Your task to perform on an android device: View the shopping cart on amazon. Search for "logitech g pro" on amazon, select the first entry, add it to the cart, then select checkout. Image 0: 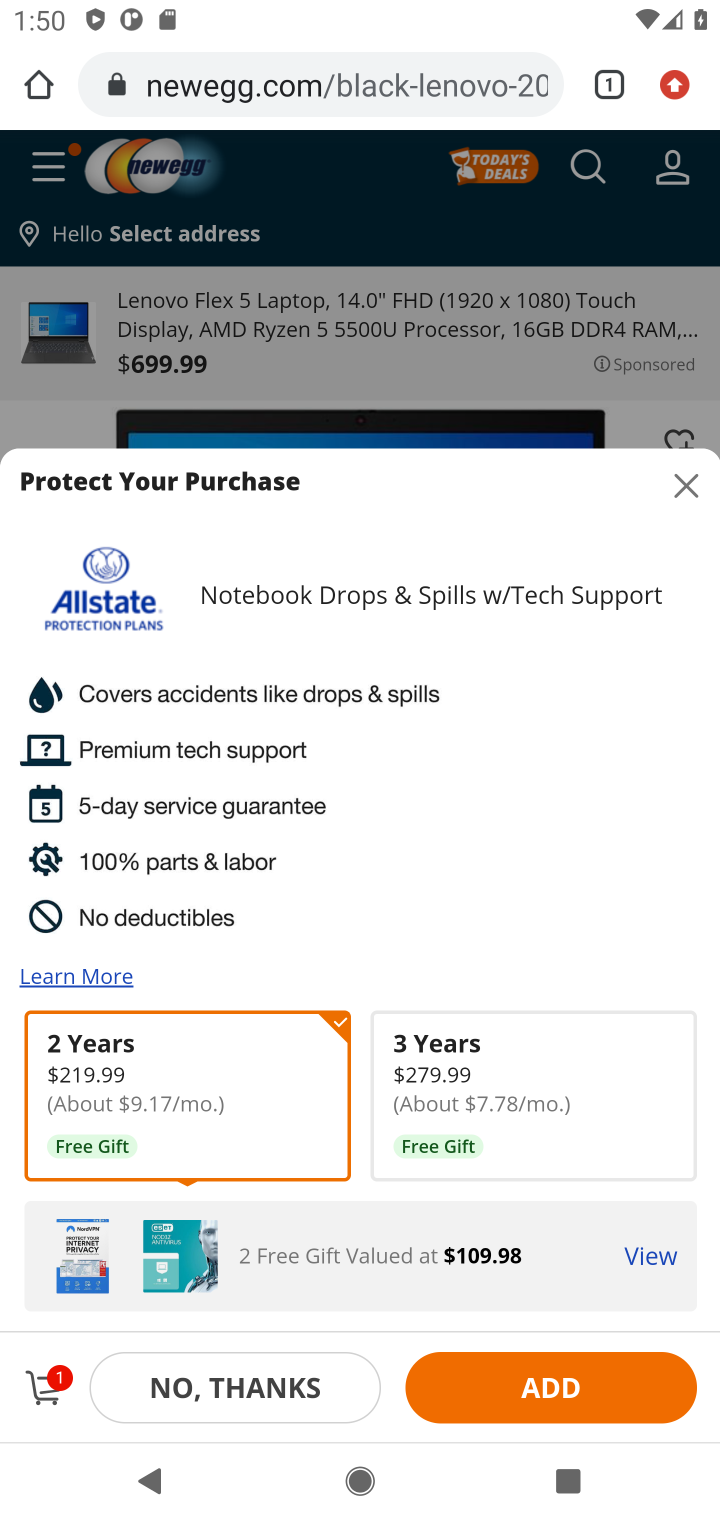
Step 0: press home button
Your task to perform on an android device: View the shopping cart on amazon. Search for "logitech g pro" on amazon, select the first entry, add it to the cart, then select checkout. Image 1: 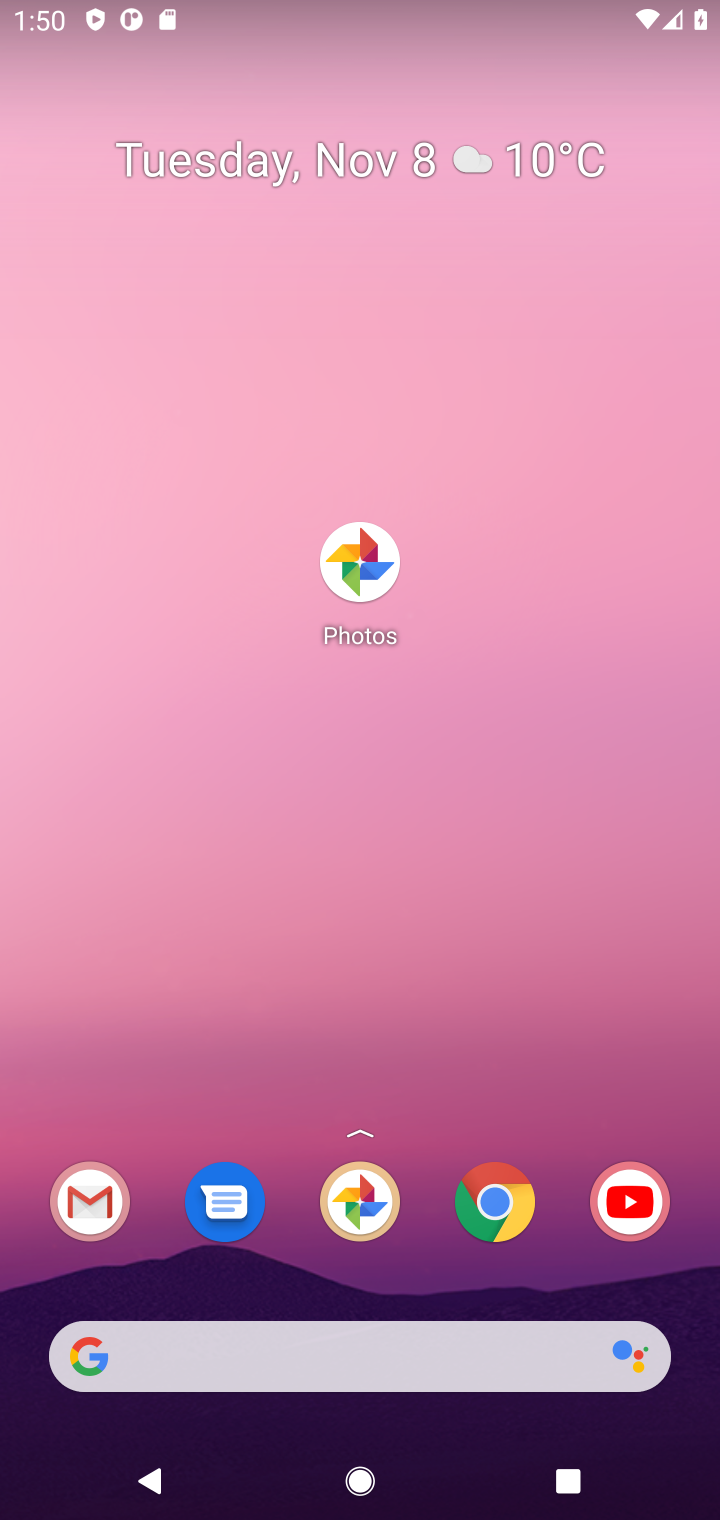
Step 1: drag from (329, 1317) to (306, 686)
Your task to perform on an android device: View the shopping cart on amazon. Search for "logitech g pro" on amazon, select the first entry, add it to the cart, then select checkout. Image 2: 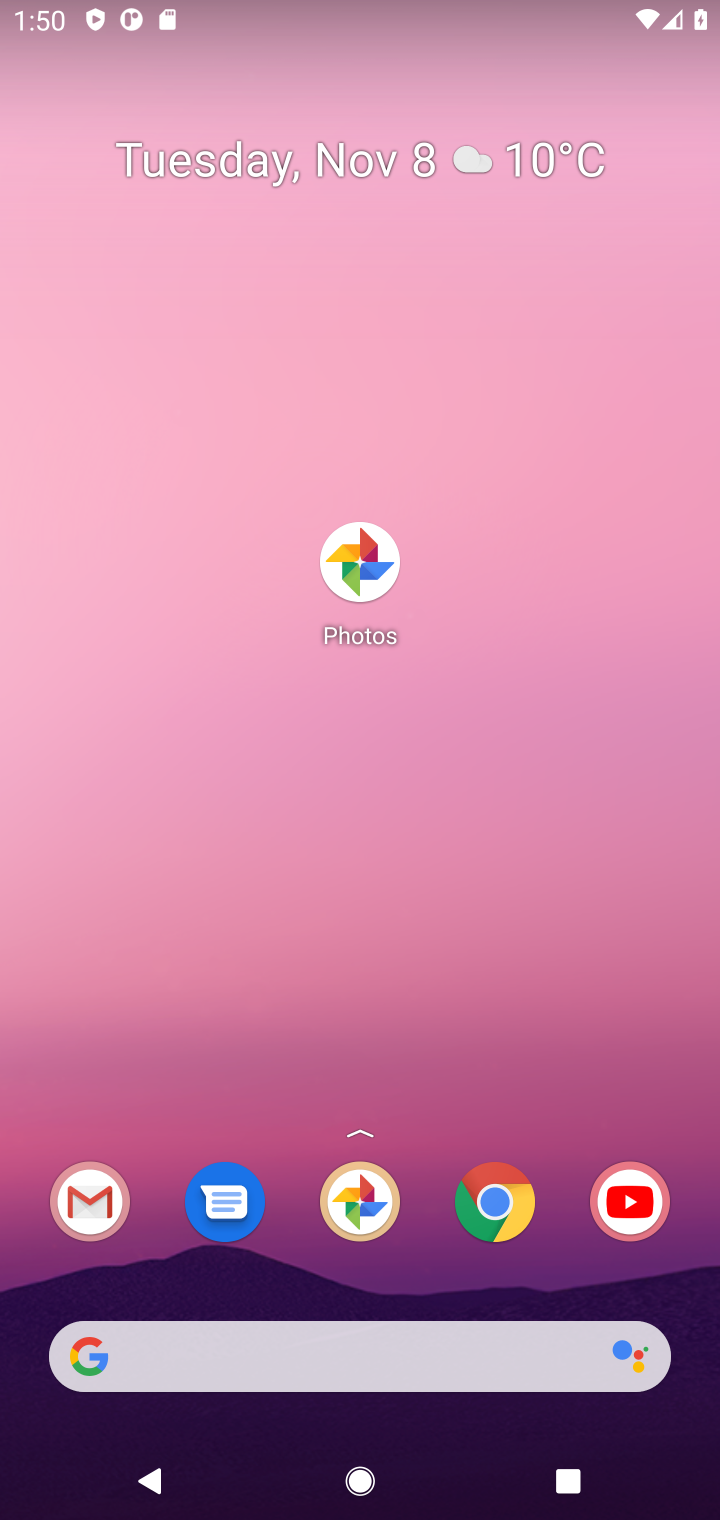
Step 2: click (438, 377)
Your task to perform on an android device: View the shopping cart on amazon. Search for "logitech g pro" on amazon, select the first entry, add it to the cart, then select checkout. Image 3: 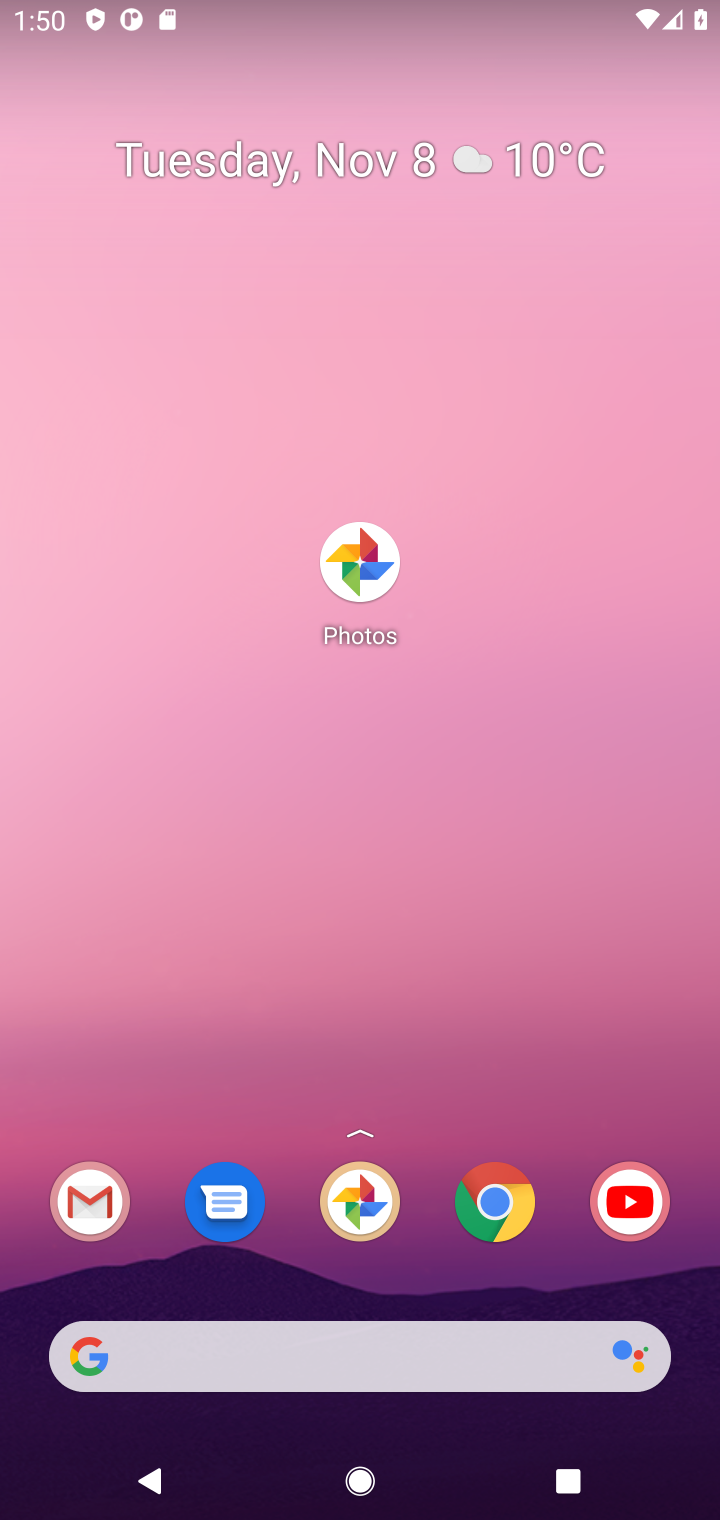
Step 3: drag from (435, 1272) to (511, 187)
Your task to perform on an android device: View the shopping cart on amazon. Search for "logitech g pro" on amazon, select the first entry, add it to the cart, then select checkout. Image 4: 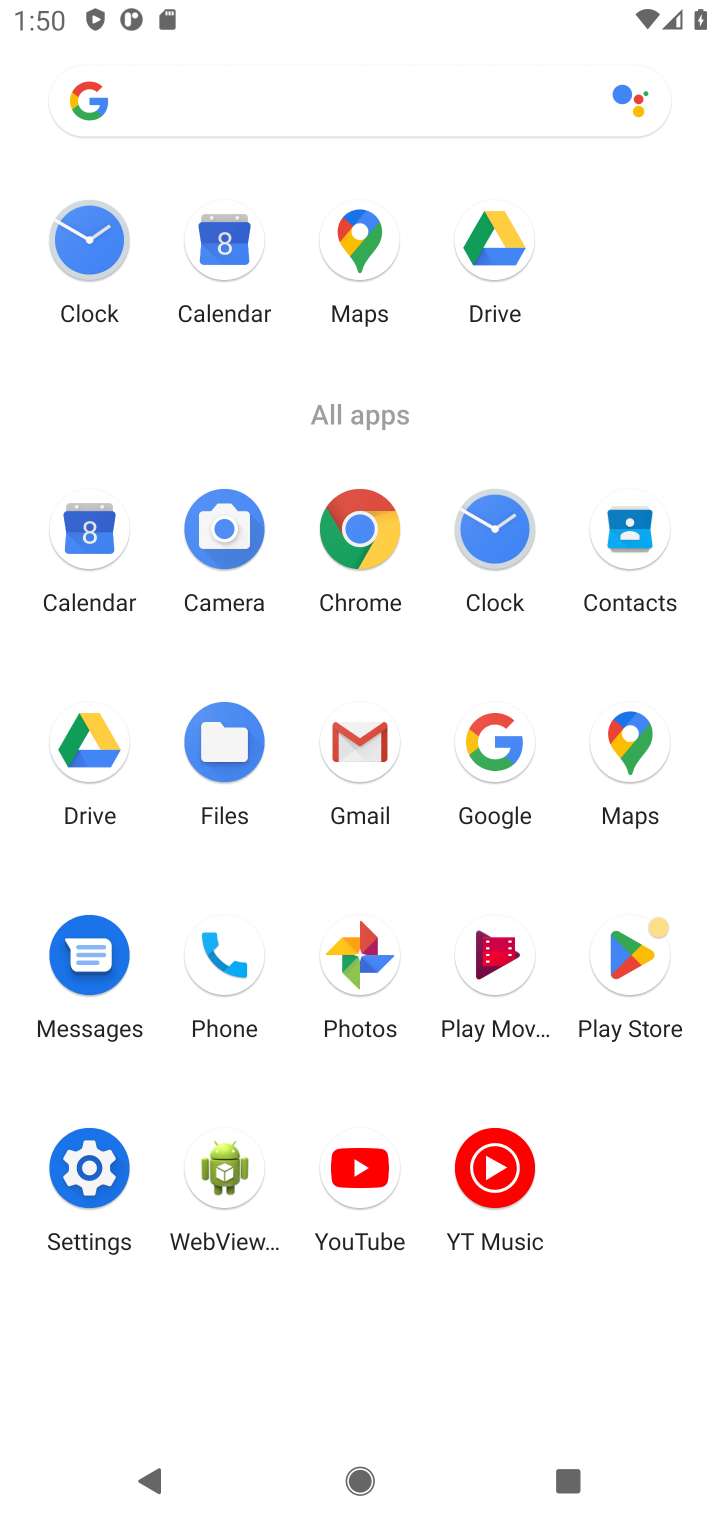
Step 4: click (493, 772)
Your task to perform on an android device: View the shopping cart on amazon. Search for "logitech g pro" on amazon, select the first entry, add it to the cart, then select checkout. Image 5: 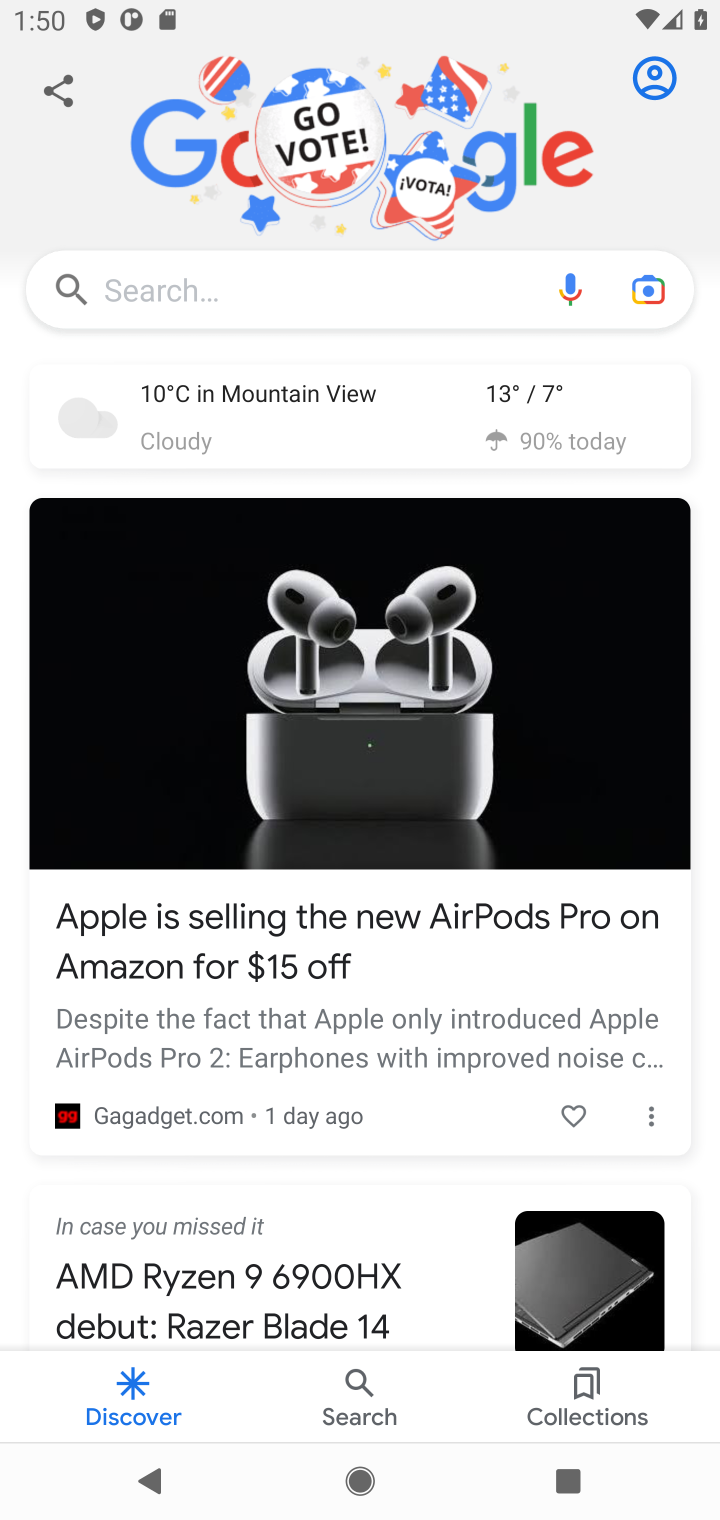
Step 5: click (336, 298)
Your task to perform on an android device: View the shopping cart on amazon. Search for "logitech g pro" on amazon, select the first entry, add it to the cart, then select checkout. Image 6: 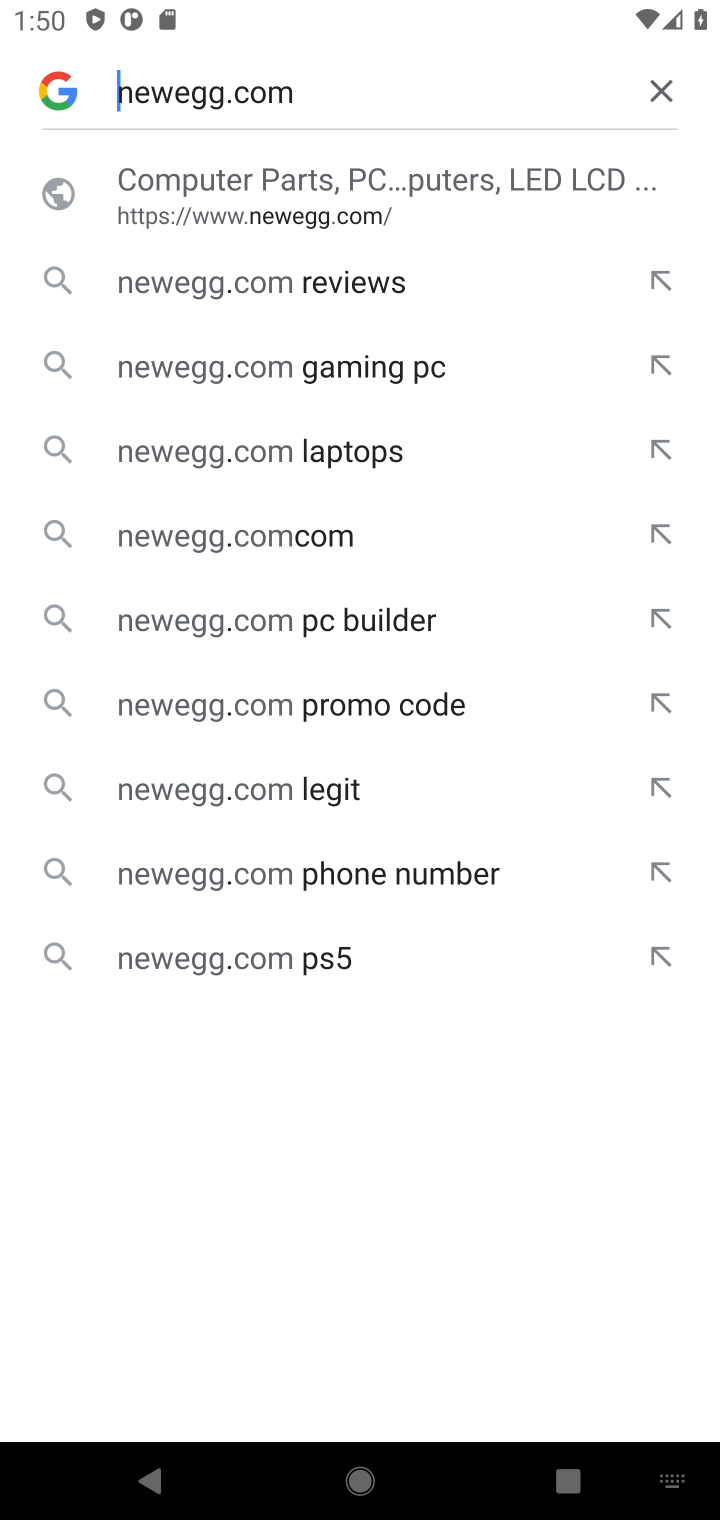
Step 6: click (645, 89)
Your task to perform on an android device: View the shopping cart on amazon. Search for "logitech g pro" on amazon, select the first entry, add it to the cart, then select checkout. Image 7: 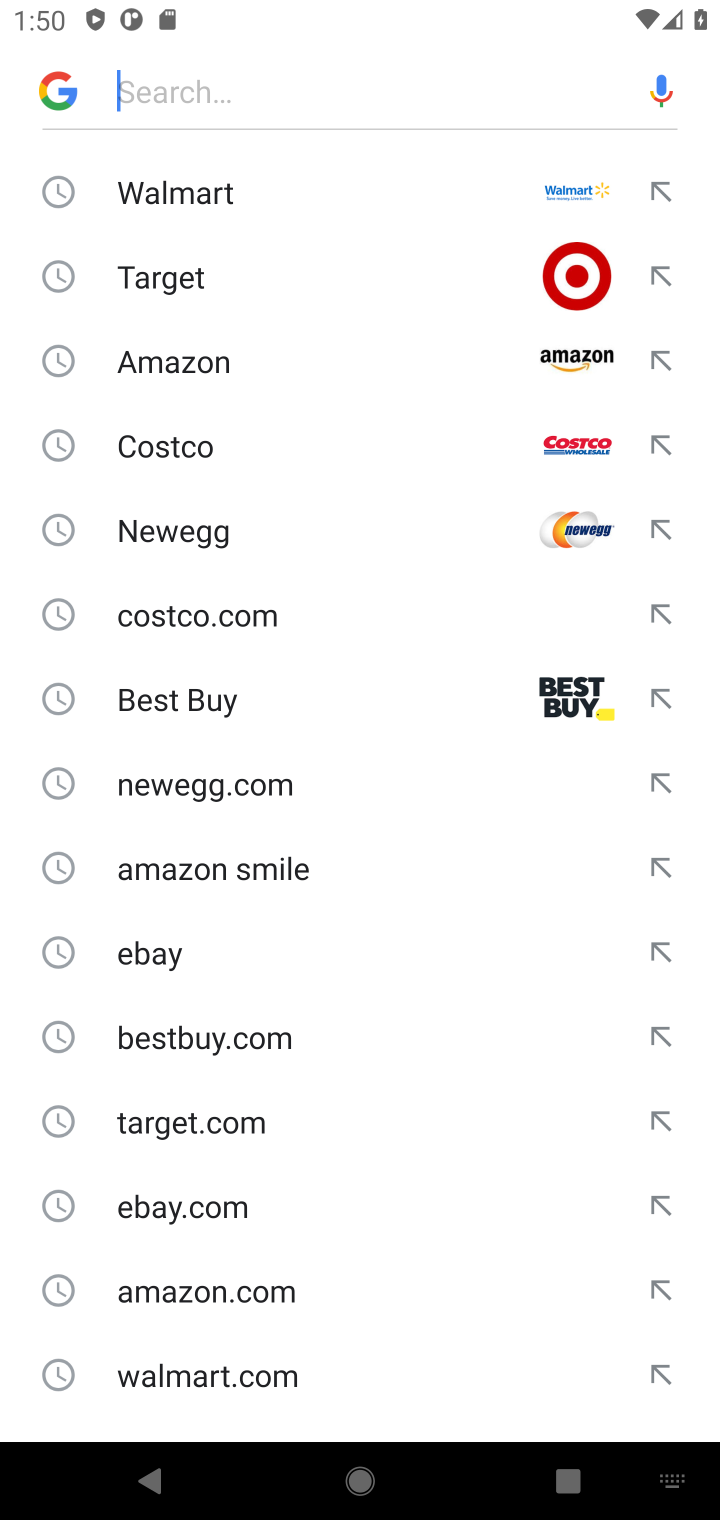
Step 7: type "amazon"
Your task to perform on an android device: View the shopping cart on amazon. Search for "logitech g pro" on amazon, select the first entry, add it to the cart, then select checkout. Image 8: 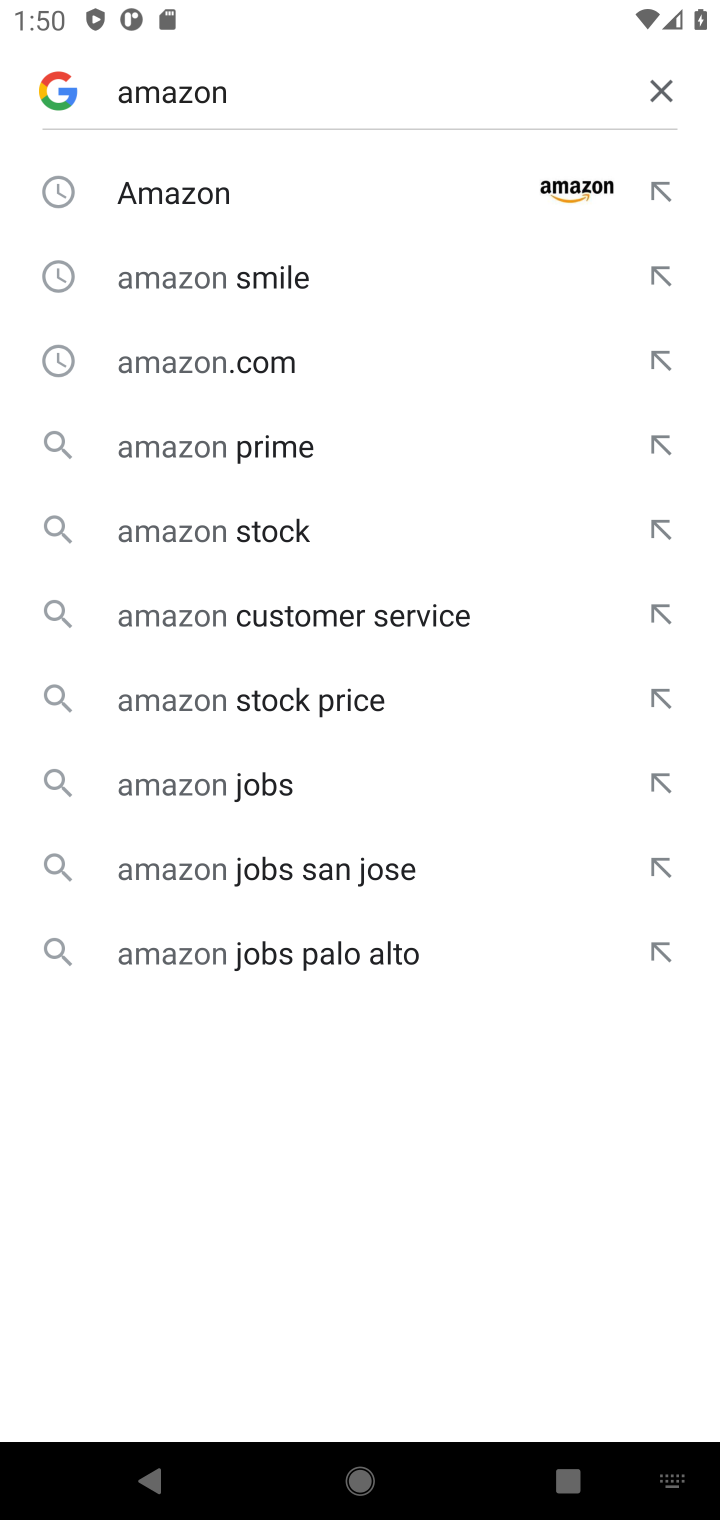
Step 8: click (167, 173)
Your task to perform on an android device: View the shopping cart on amazon. Search for "logitech g pro" on amazon, select the first entry, add it to the cart, then select checkout. Image 9: 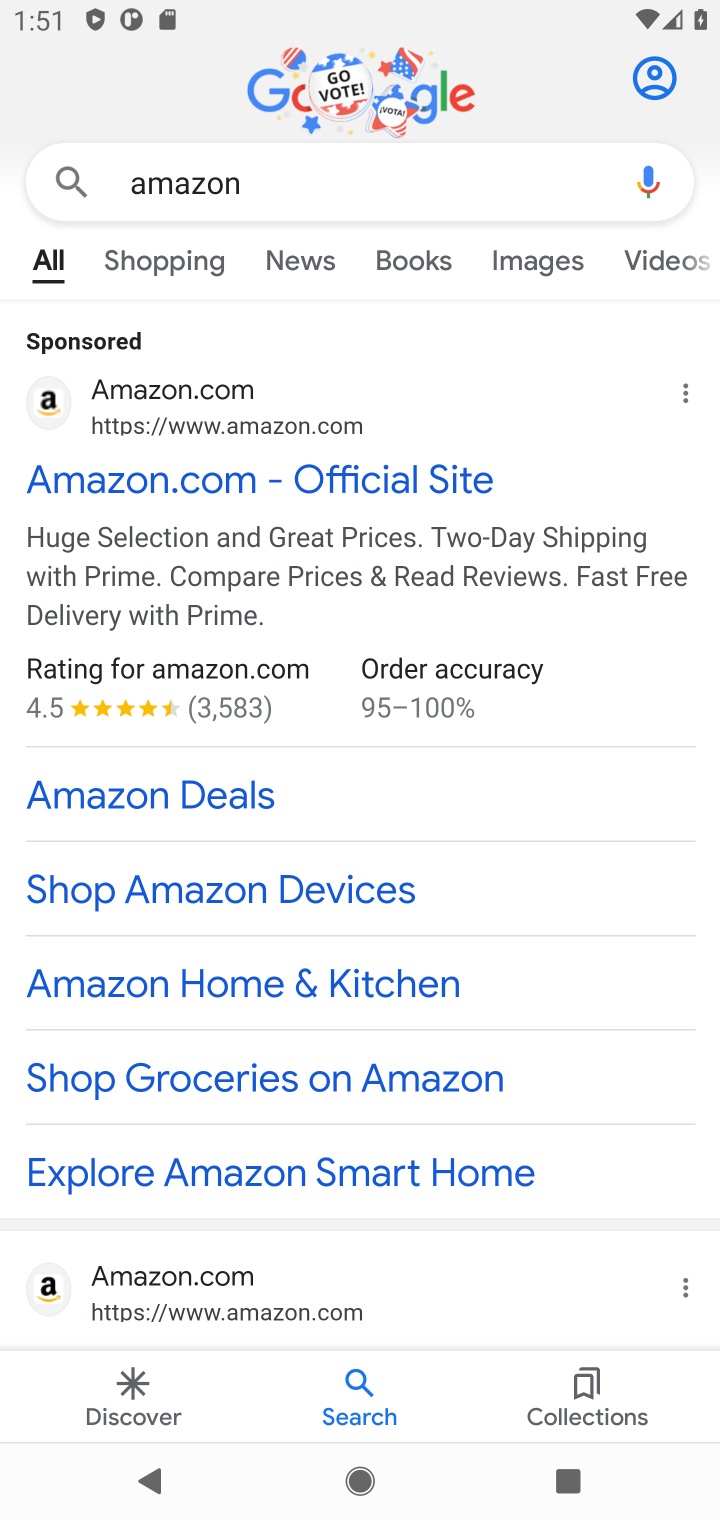
Step 9: click (185, 471)
Your task to perform on an android device: View the shopping cart on amazon. Search for "logitech g pro" on amazon, select the first entry, add it to the cart, then select checkout. Image 10: 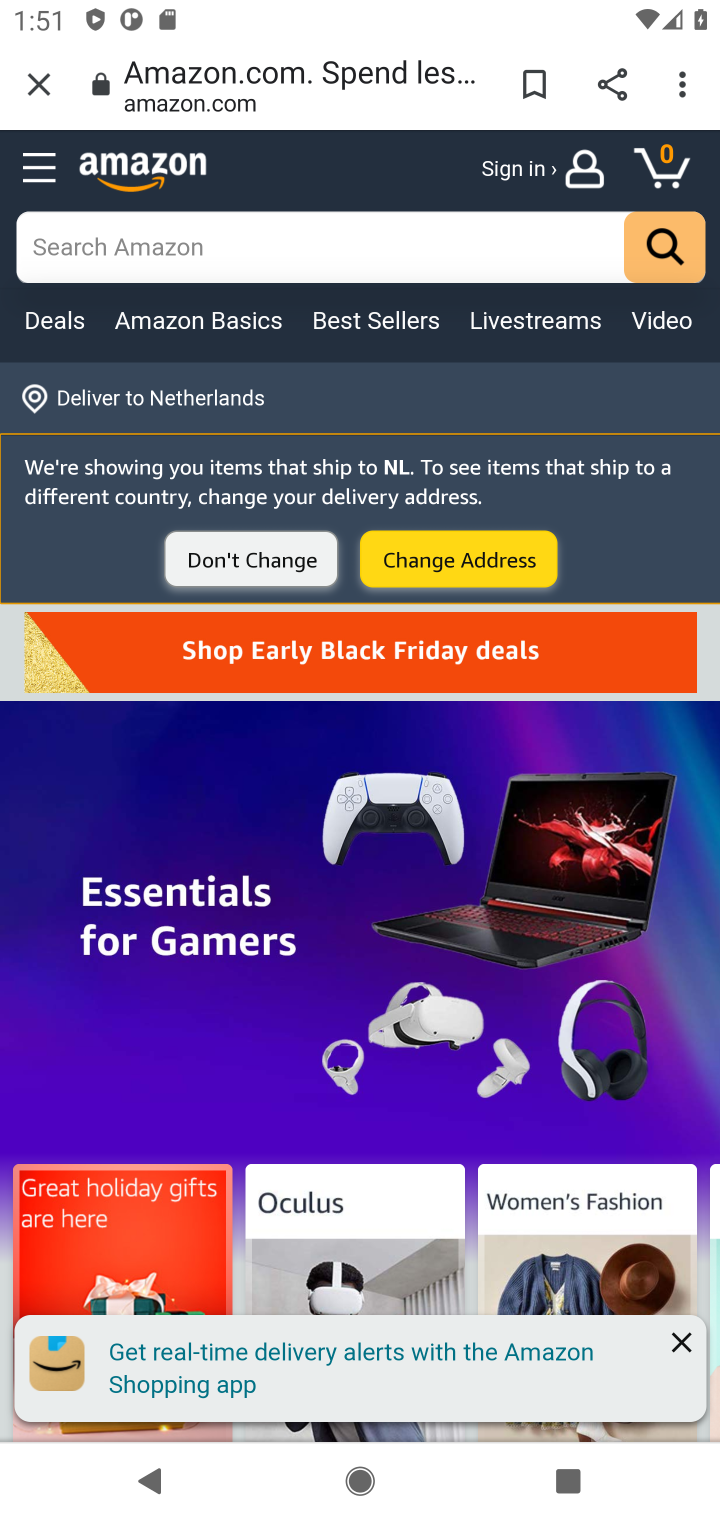
Step 10: click (376, 255)
Your task to perform on an android device: View the shopping cart on amazon. Search for "logitech g pro" on amazon, select the first entry, add it to the cart, then select checkout. Image 11: 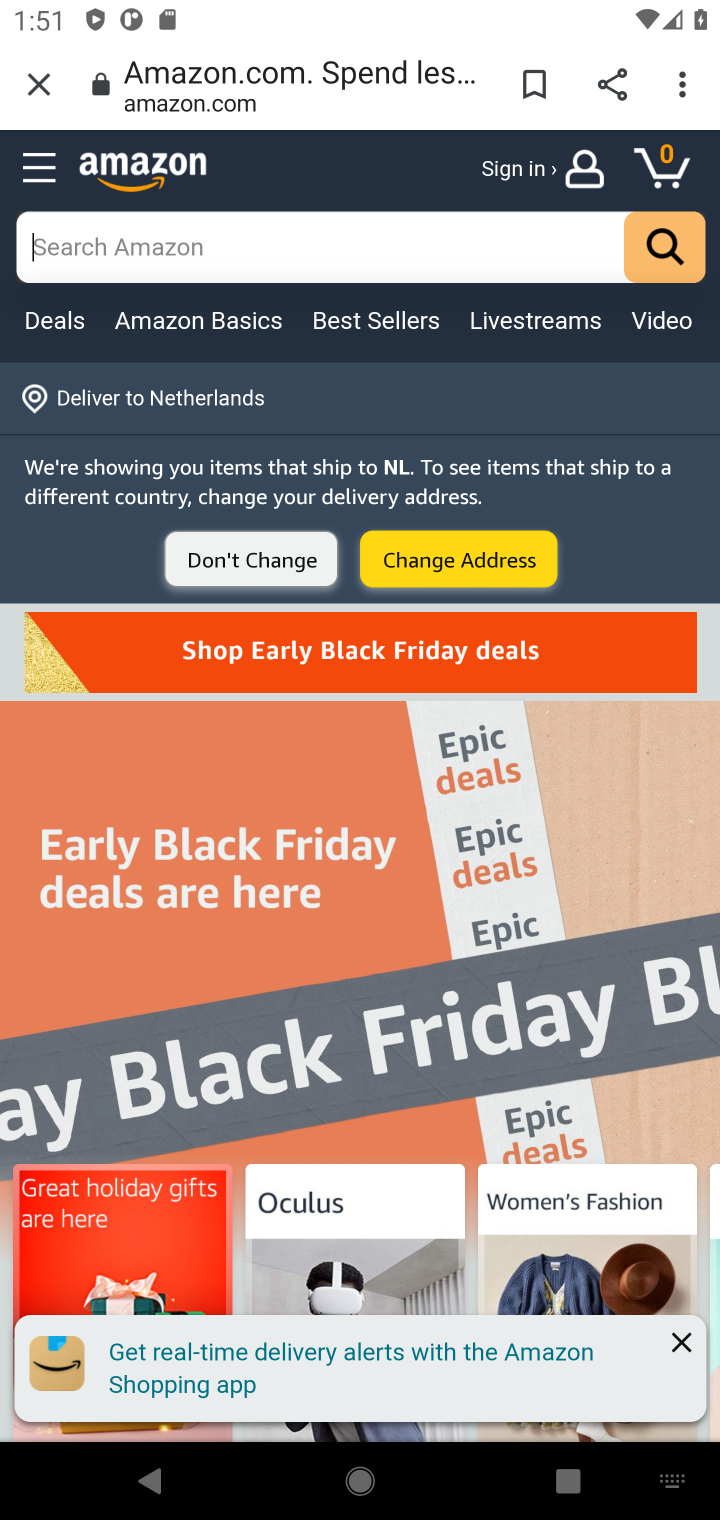
Step 11: type "logitech g pro"
Your task to perform on an android device: View the shopping cart on amazon. Search for "logitech g pro" on amazon, select the first entry, add it to the cart, then select checkout. Image 12: 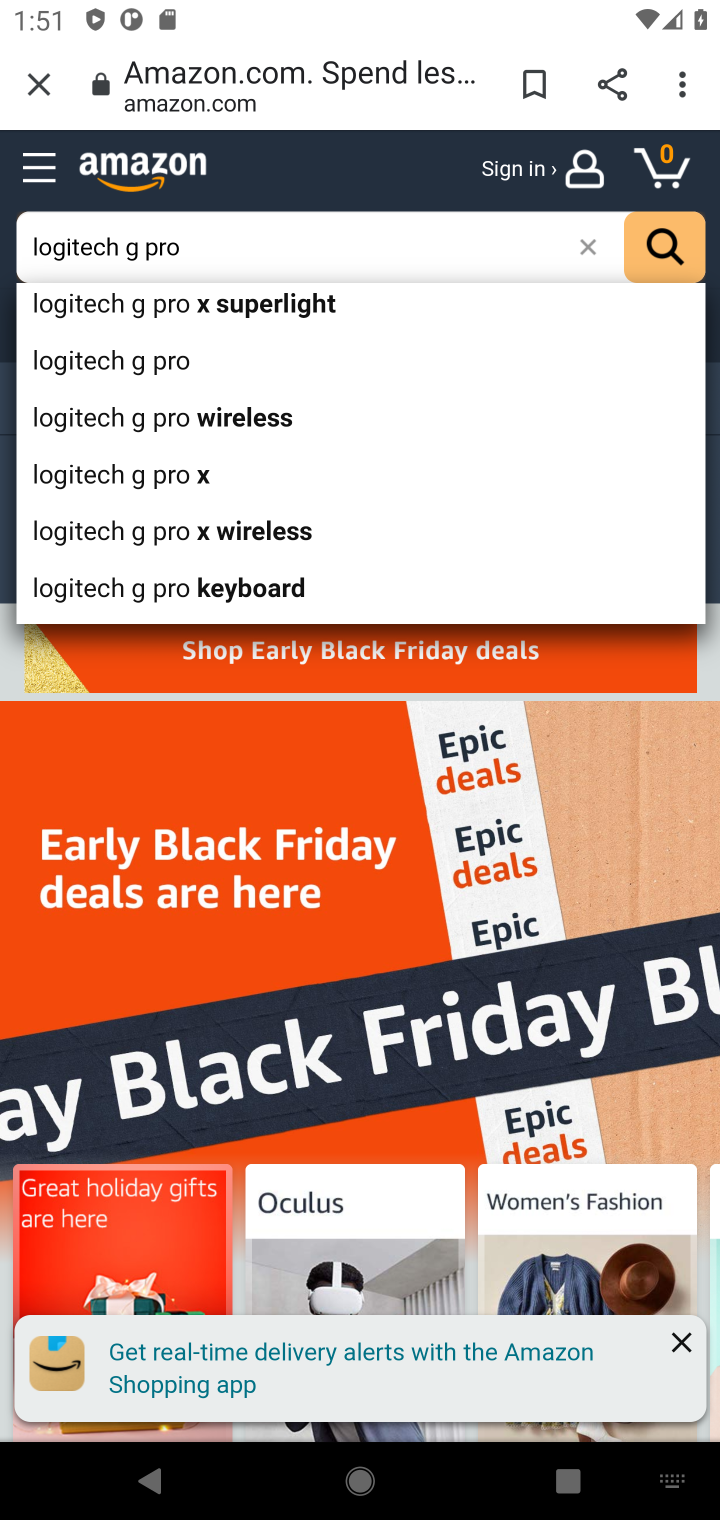
Step 12: click (91, 362)
Your task to perform on an android device: View the shopping cart on amazon. Search for "logitech g pro" on amazon, select the first entry, add it to the cart, then select checkout. Image 13: 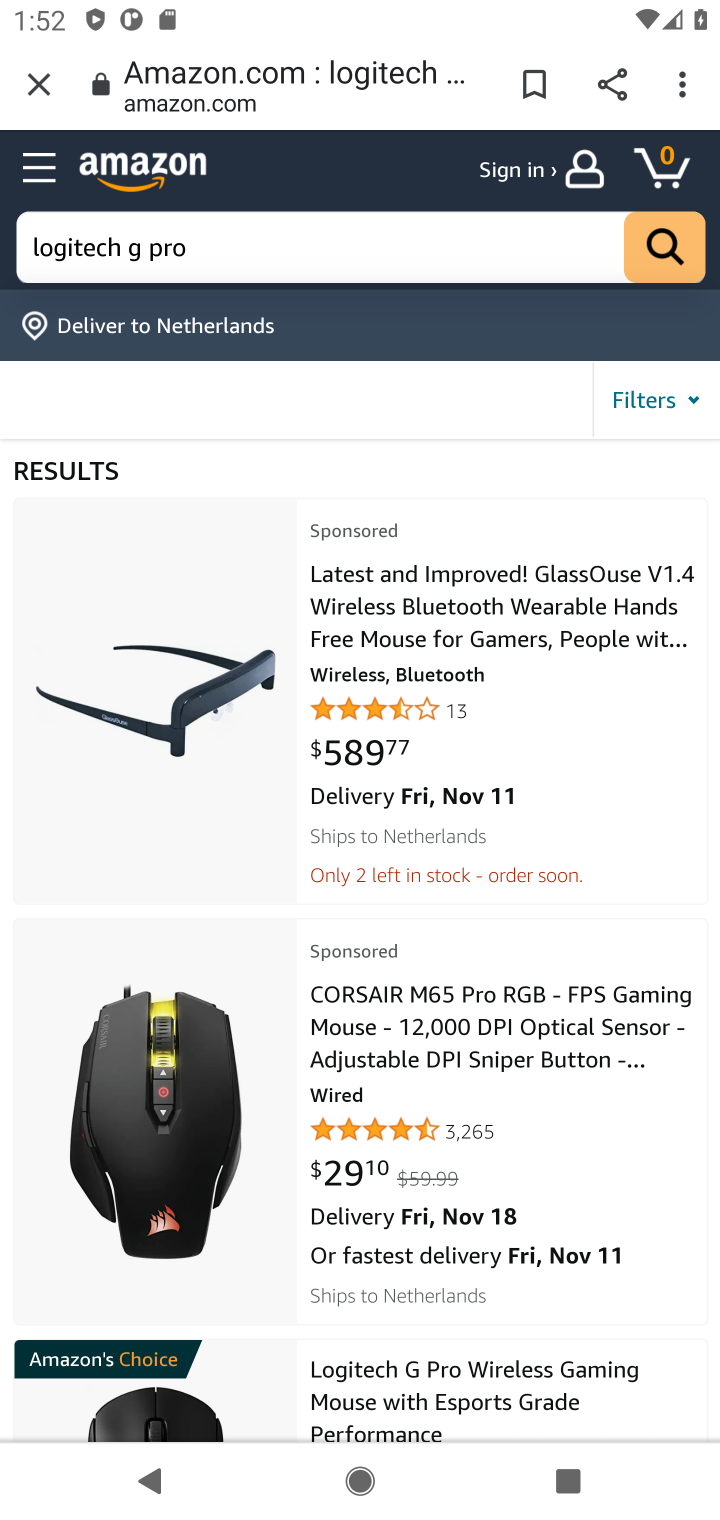
Step 13: click (438, 1457)
Your task to perform on an android device: View the shopping cart on amazon. Search for "logitech g pro" on amazon, select the first entry, add it to the cart, then select checkout. Image 14: 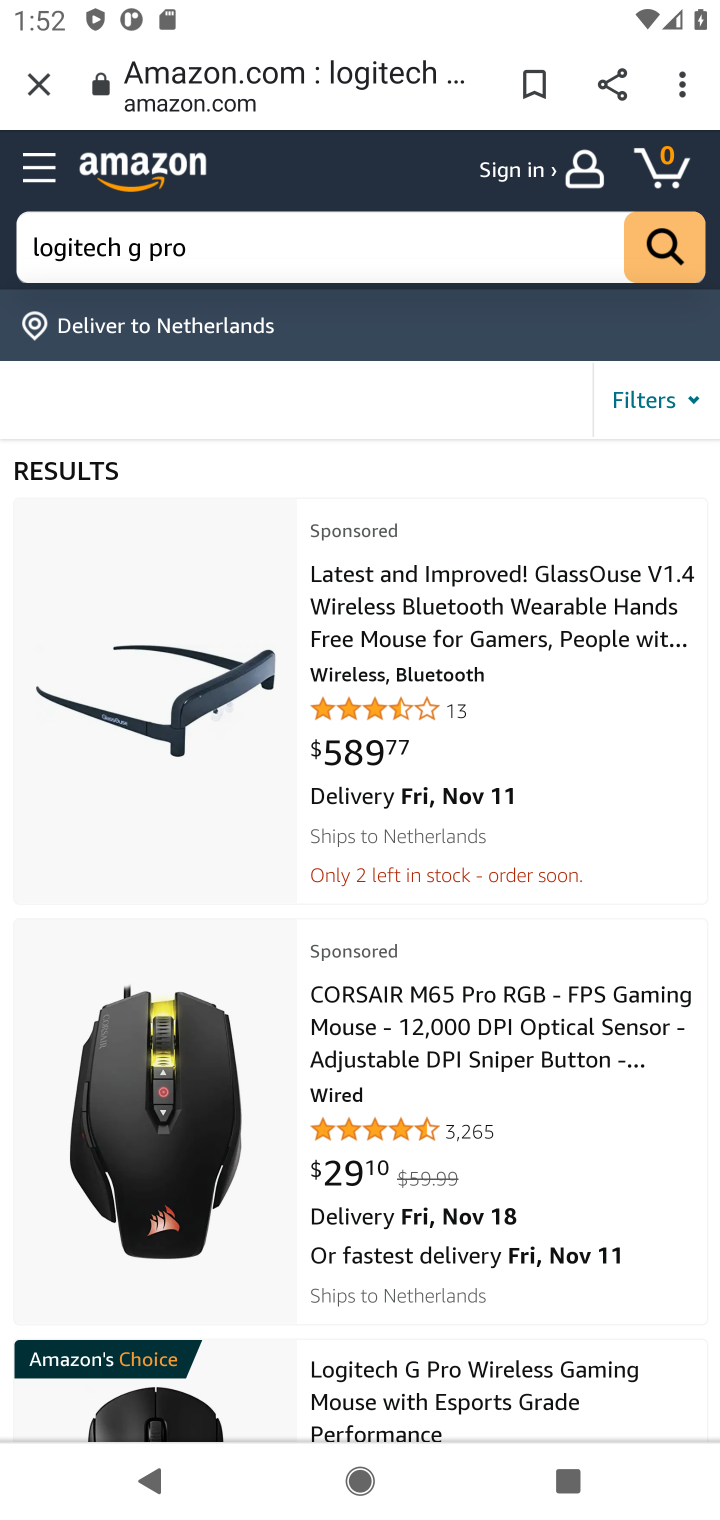
Step 14: click (469, 1402)
Your task to perform on an android device: View the shopping cart on amazon. Search for "logitech g pro" on amazon, select the first entry, add it to the cart, then select checkout. Image 15: 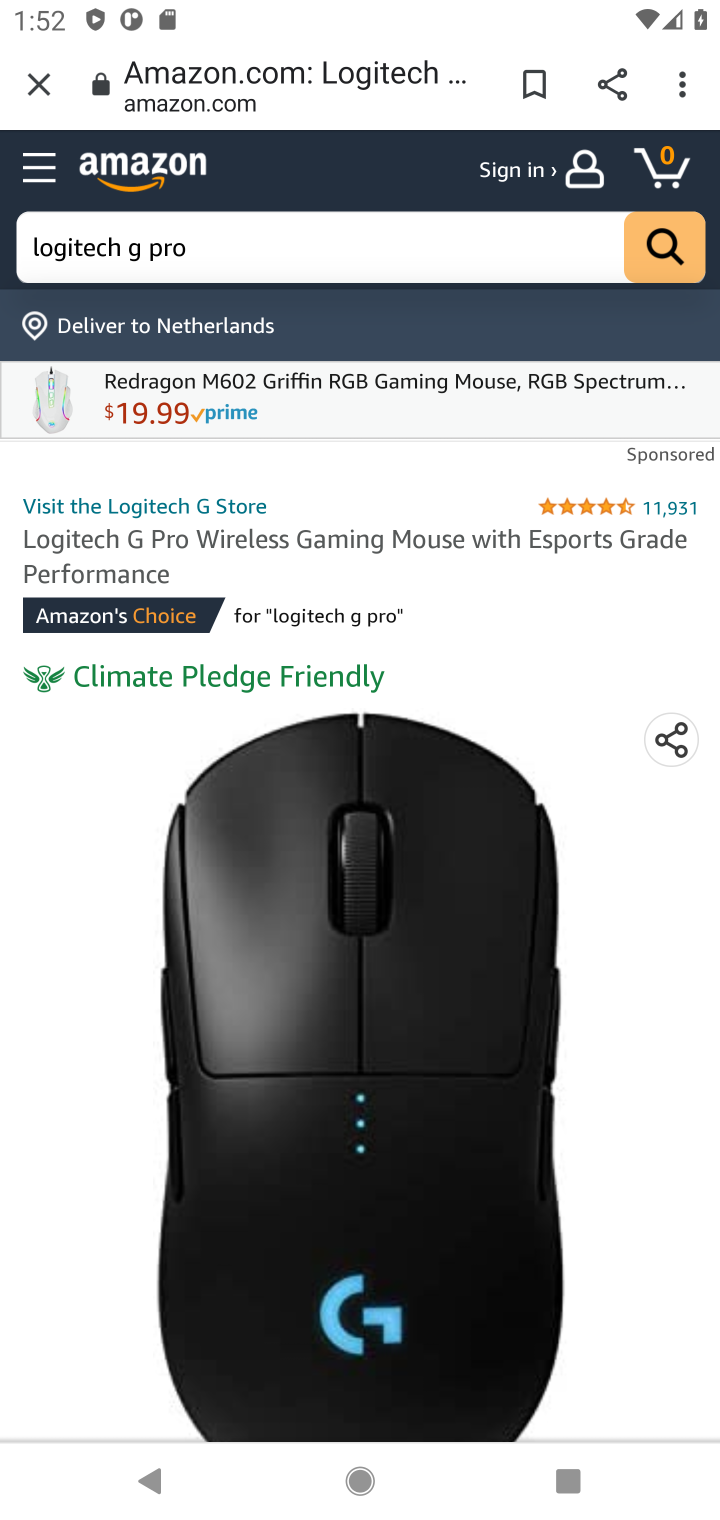
Step 15: task complete